Your task to perform on an android device: uninstall "Pandora - Music & Podcasts" Image 0: 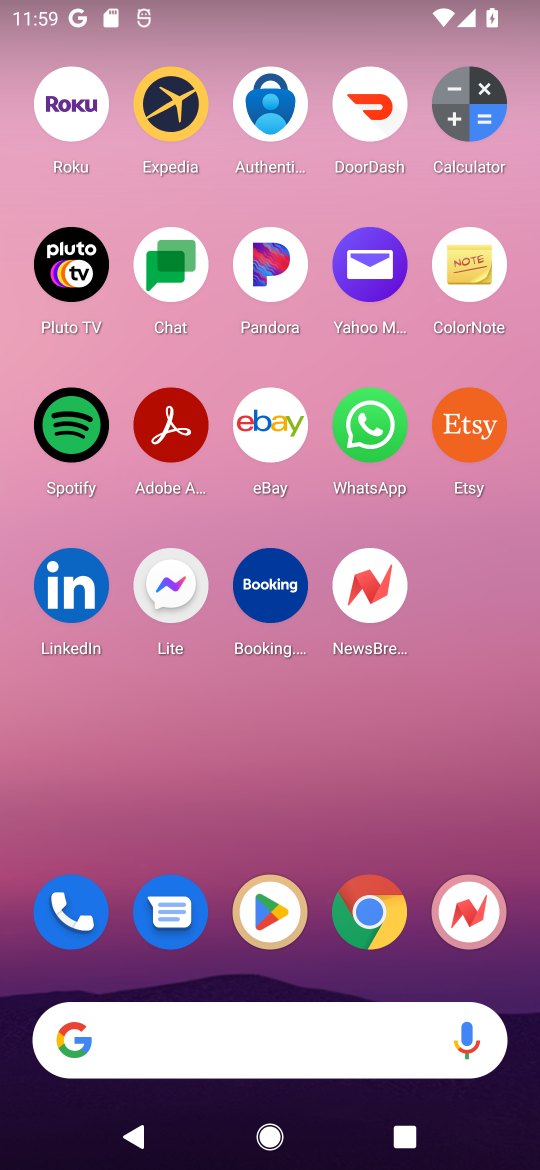
Step 0: click (251, 911)
Your task to perform on an android device: uninstall "Pandora - Music & Podcasts" Image 1: 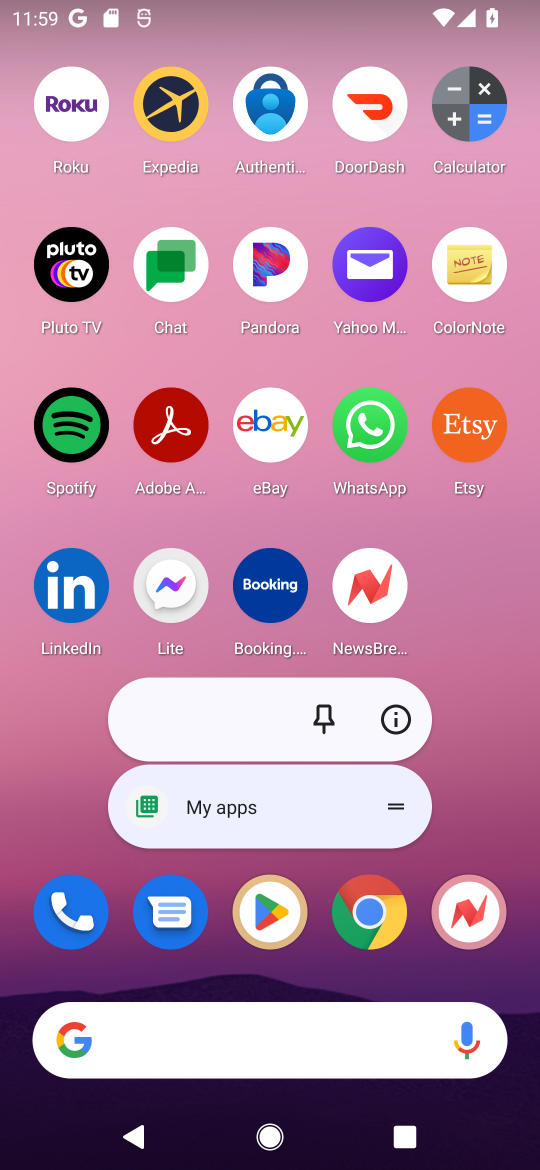
Step 1: click (262, 911)
Your task to perform on an android device: uninstall "Pandora - Music & Podcasts" Image 2: 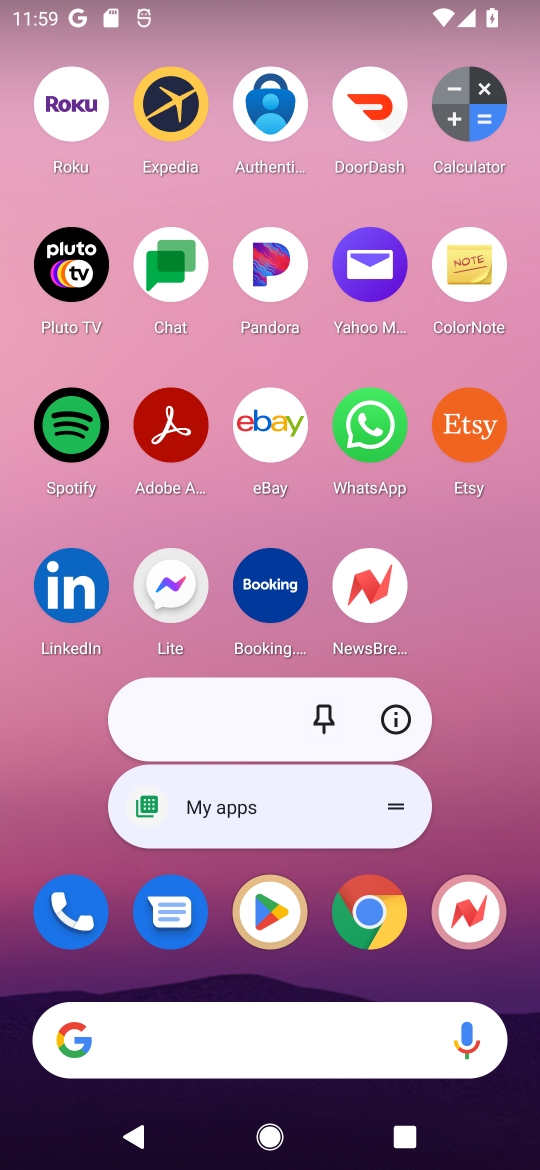
Step 2: click (277, 913)
Your task to perform on an android device: uninstall "Pandora - Music & Podcasts" Image 3: 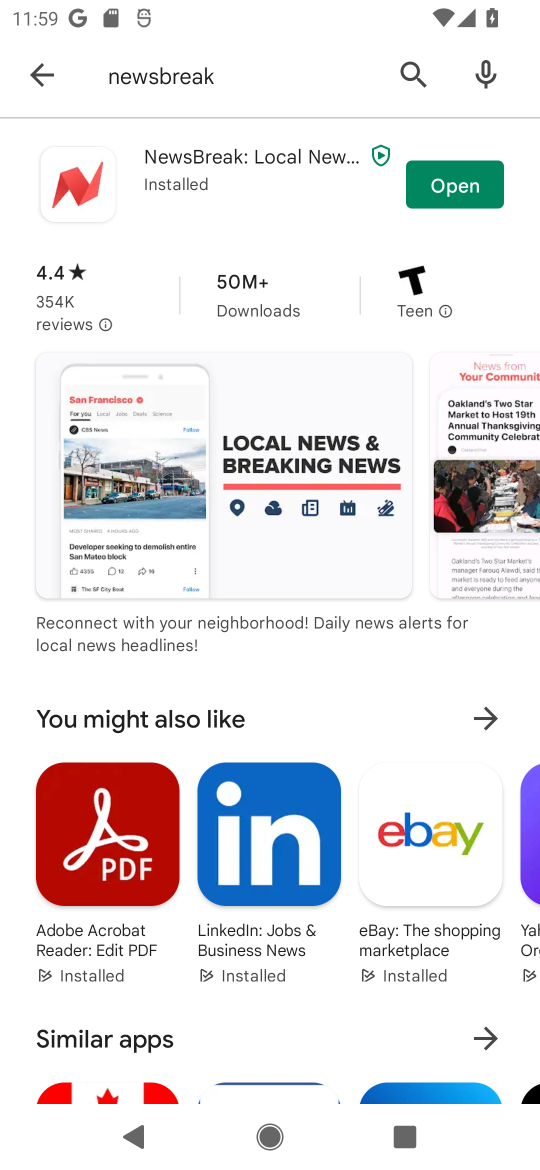
Step 3: click (427, 68)
Your task to perform on an android device: uninstall "Pandora - Music & Podcasts" Image 4: 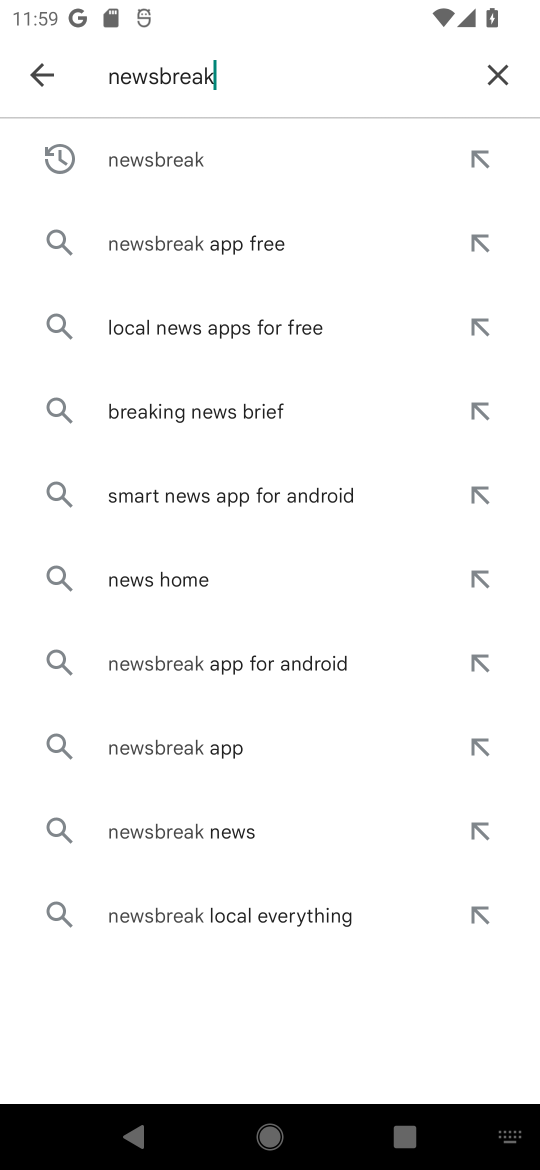
Step 4: click (505, 56)
Your task to perform on an android device: uninstall "Pandora - Music & Podcasts" Image 5: 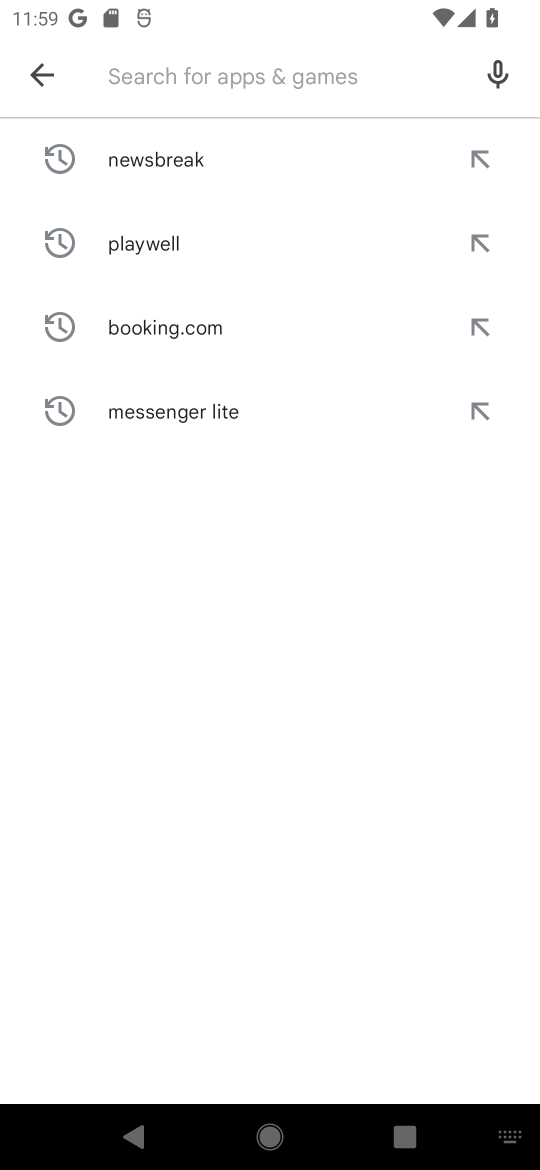
Step 5: click (196, 60)
Your task to perform on an android device: uninstall "Pandora - Music & Podcasts" Image 6: 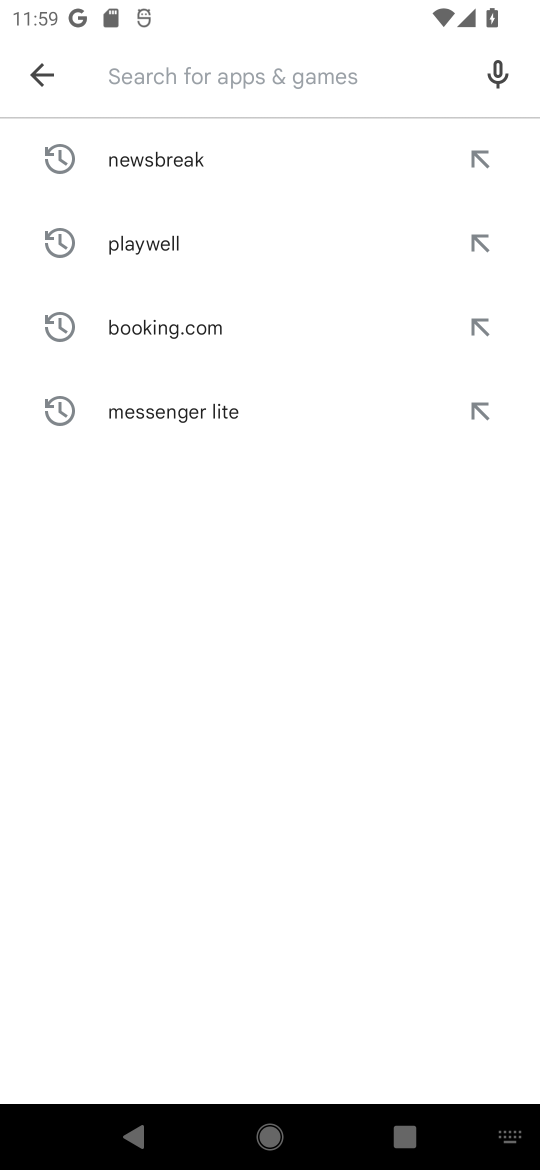
Step 6: type "Pandora"
Your task to perform on an android device: uninstall "Pandora - Music & Podcasts" Image 7: 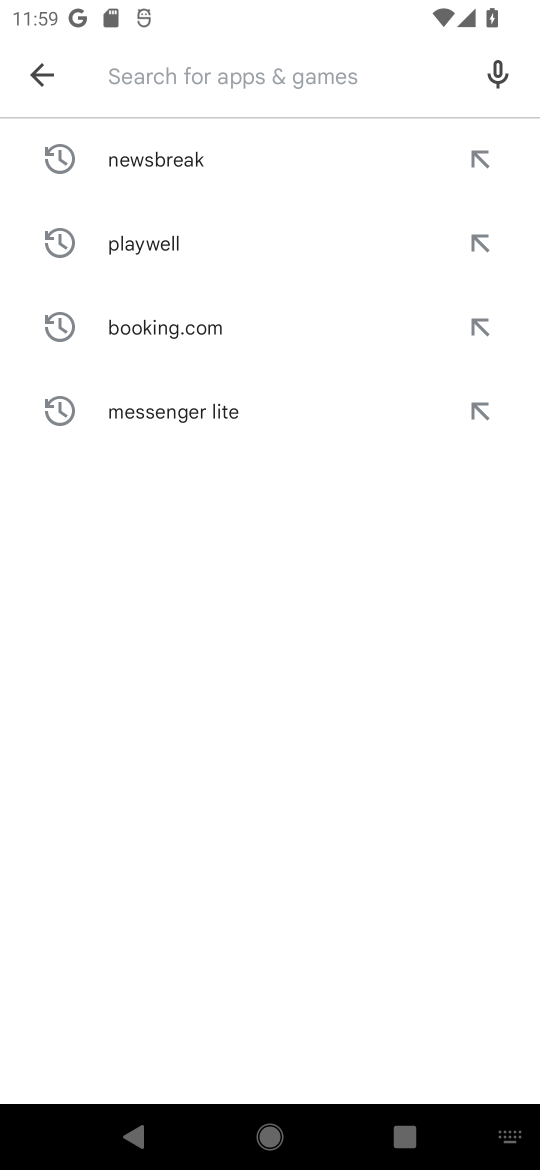
Step 7: click (271, 722)
Your task to perform on an android device: uninstall "Pandora - Music & Podcasts" Image 8: 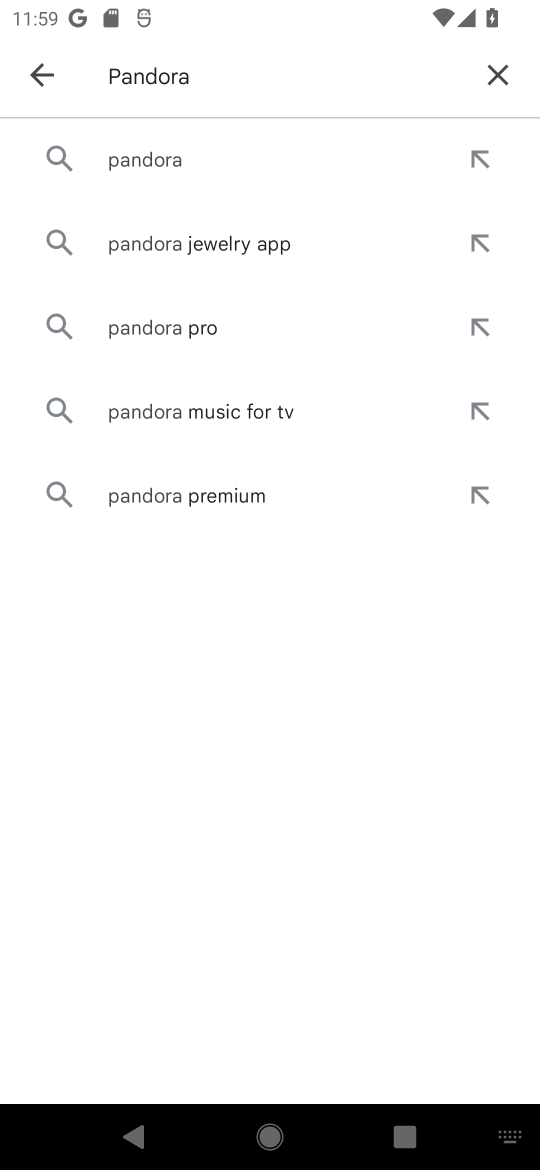
Step 8: click (210, 158)
Your task to perform on an android device: uninstall "Pandora - Music & Podcasts" Image 9: 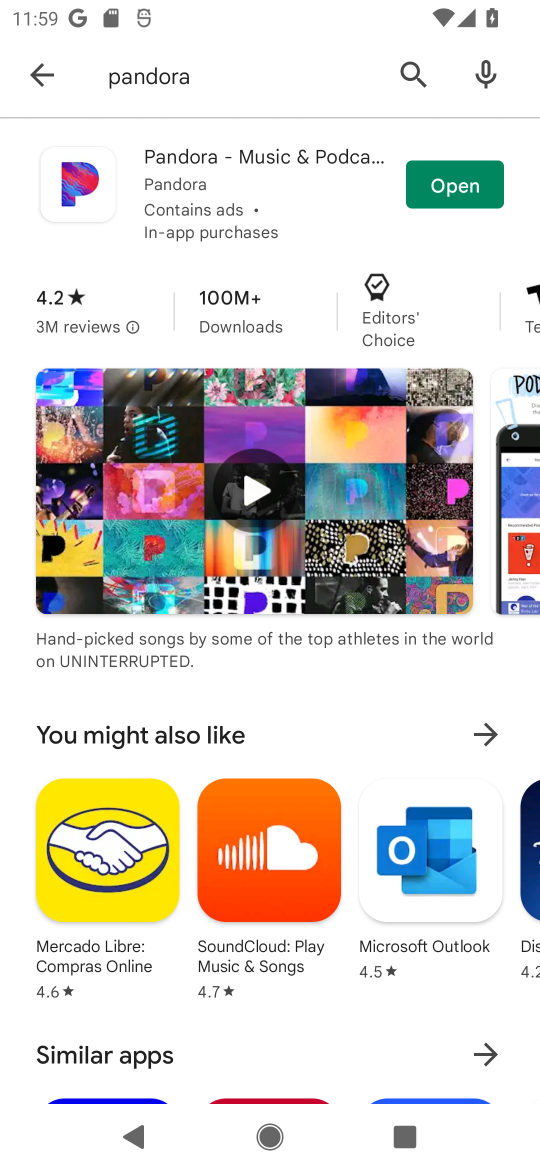
Step 9: click (163, 140)
Your task to perform on an android device: uninstall "Pandora - Music & Podcasts" Image 10: 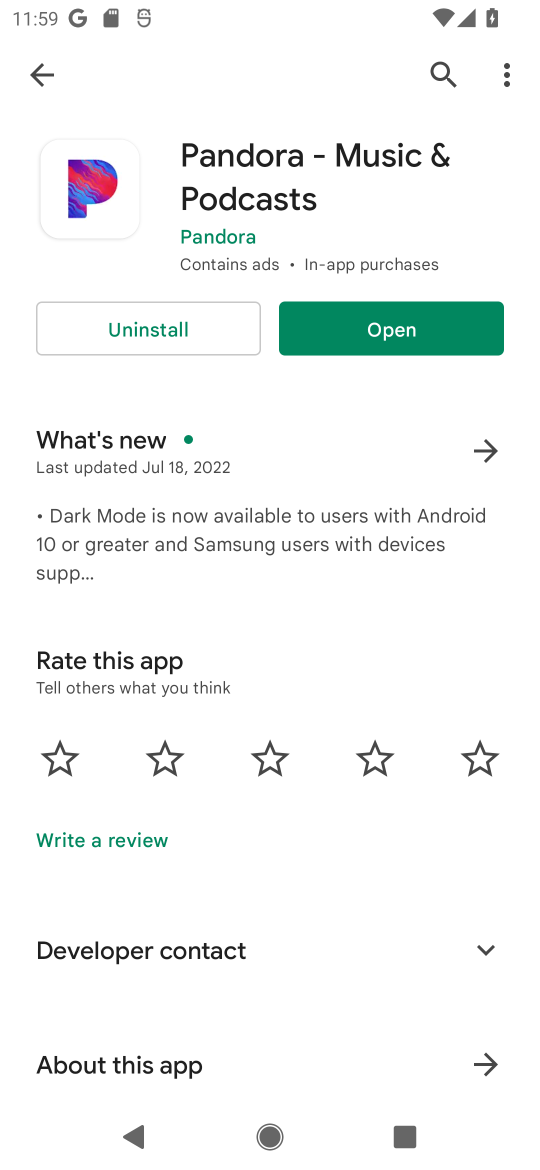
Step 10: click (173, 333)
Your task to perform on an android device: uninstall "Pandora - Music & Podcasts" Image 11: 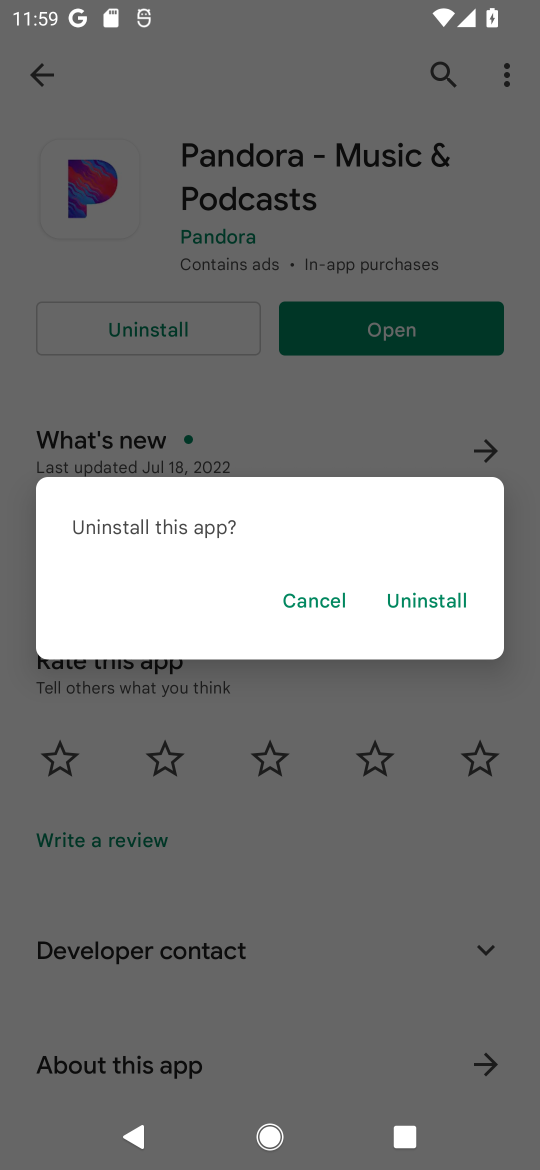
Step 11: click (389, 592)
Your task to perform on an android device: uninstall "Pandora - Music & Podcasts" Image 12: 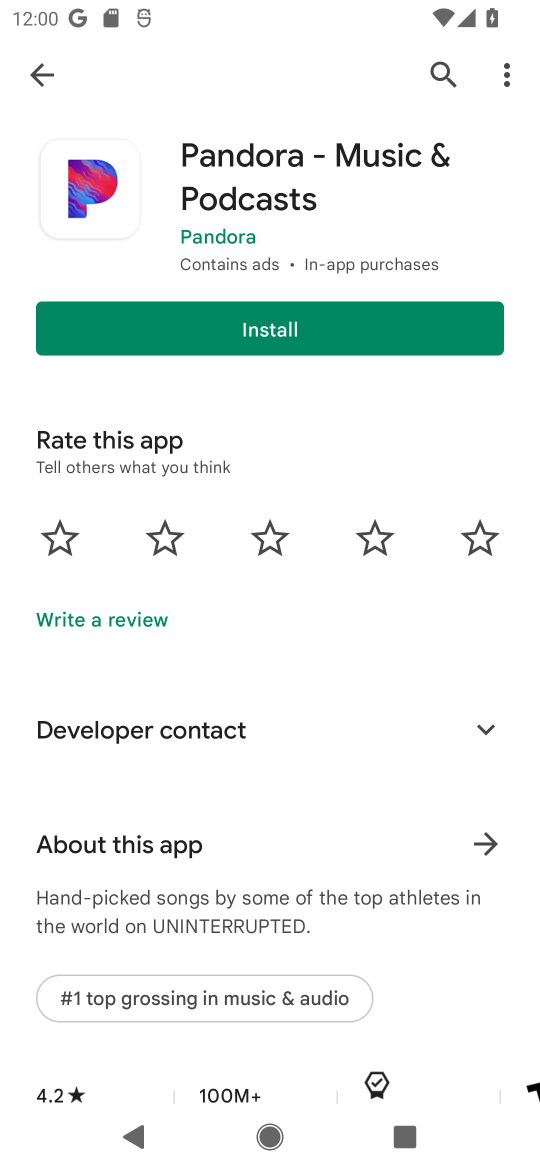
Step 12: task complete